Your task to perform on an android device: Go to privacy settings Image 0: 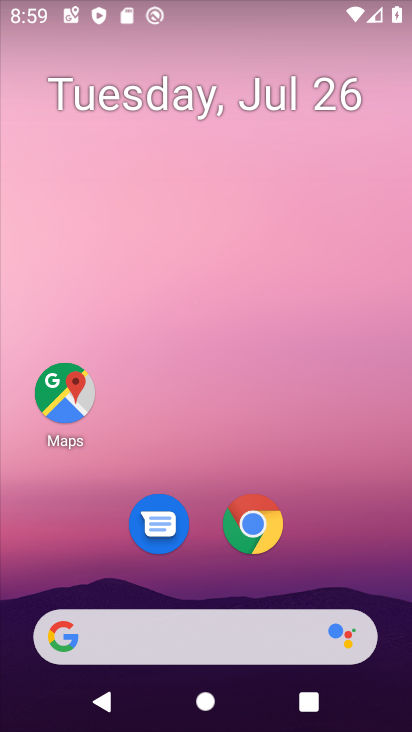
Step 0: press home button
Your task to perform on an android device: Go to privacy settings Image 1: 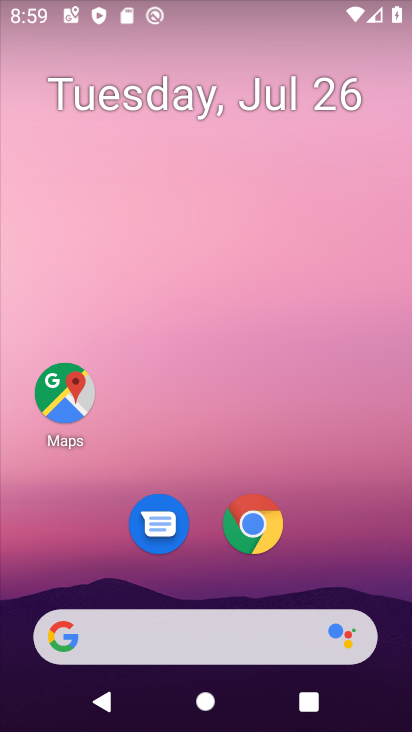
Step 1: drag from (218, 633) to (302, 65)
Your task to perform on an android device: Go to privacy settings Image 2: 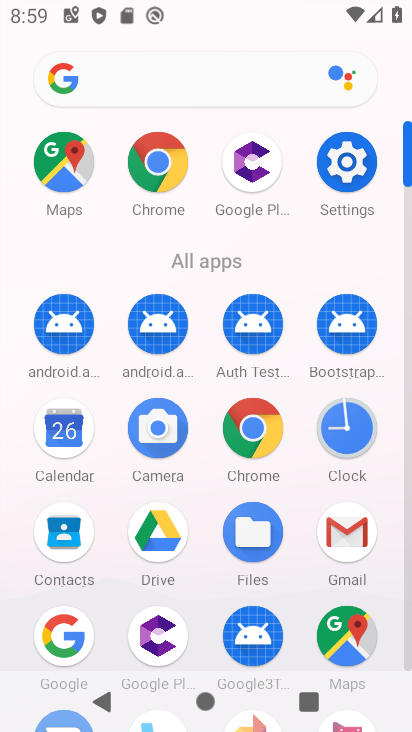
Step 2: click (349, 162)
Your task to perform on an android device: Go to privacy settings Image 3: 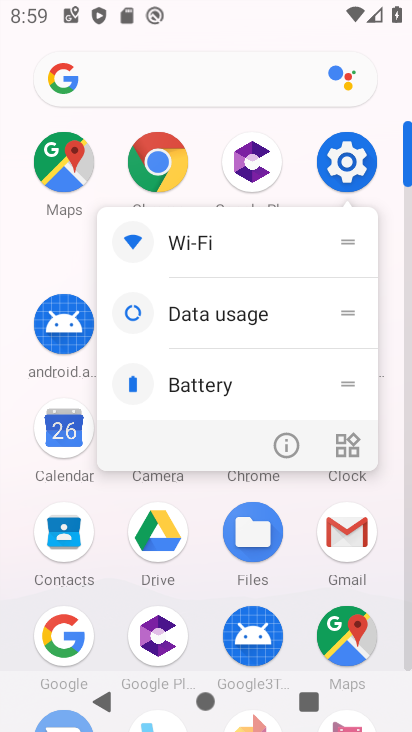
Step 3: click (349, 162)
Your task to perform on an android device: Go to privacy settings Image 4: 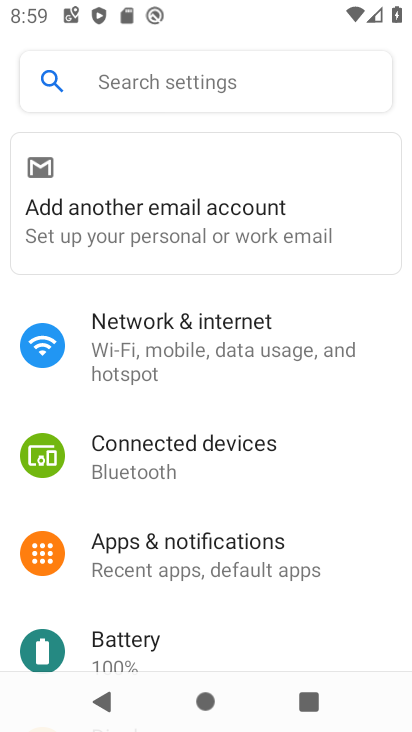
Step 4: drag from (224, 632) to (359, 36)
Your task to perform on an android device: Go to privacy settings Image 5: 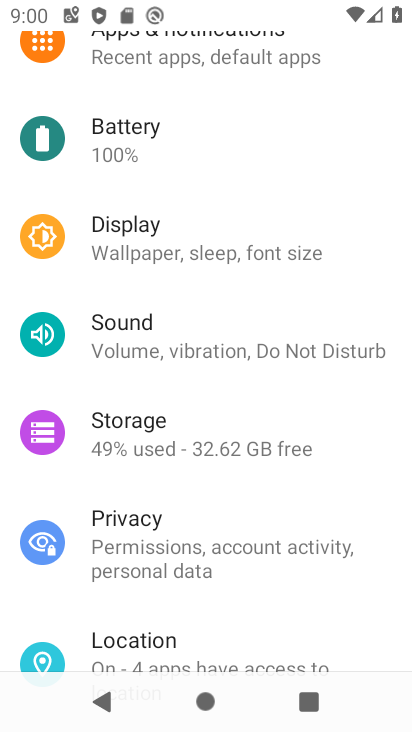
Step 5: click (157, 532)
Your task to perform on an android device: Go to privacy settings Image 6: 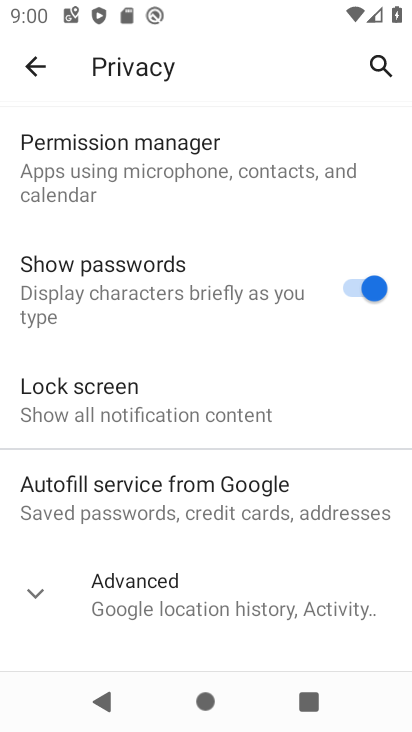
Step 6: task complete